Your task to perform on an android device: Add "razer blade" to the cart on amazon.com Image 0: 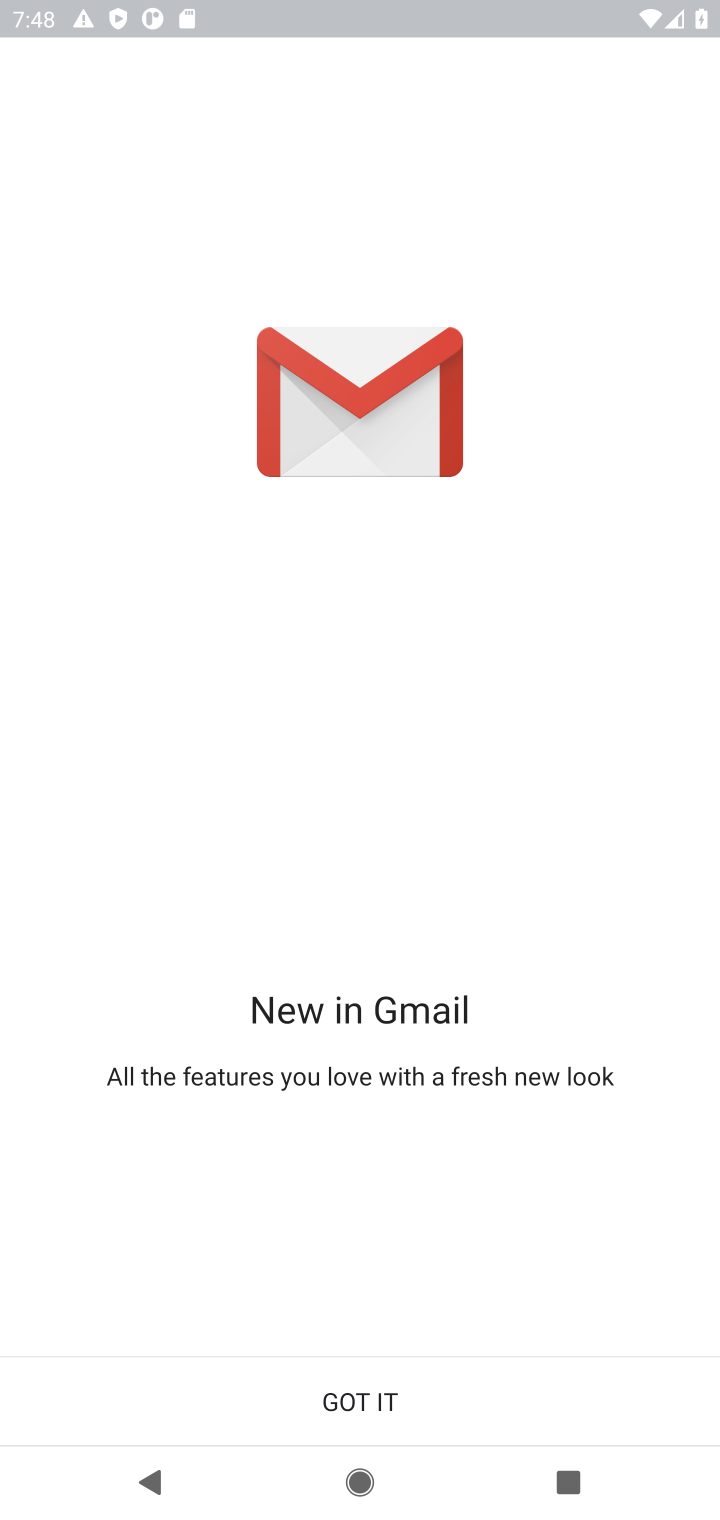
Step 0: press home button
Your task to perform on an android device: Add "razer blade" to the cart on amazon.com Image 1: 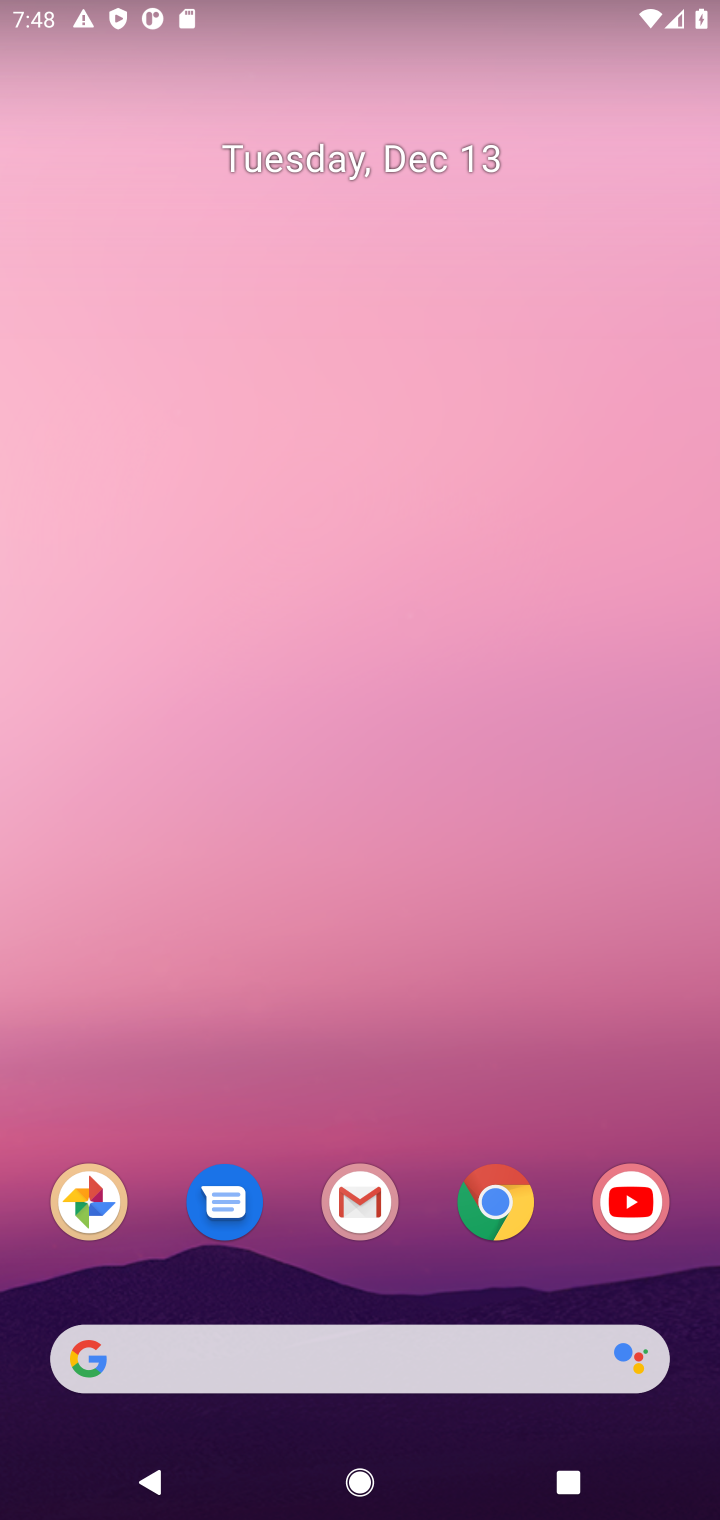
Step 1: click (494, 1205)
Your task to perform on an android device: Add "razer blade" to the cart on amazon.com Image 2: 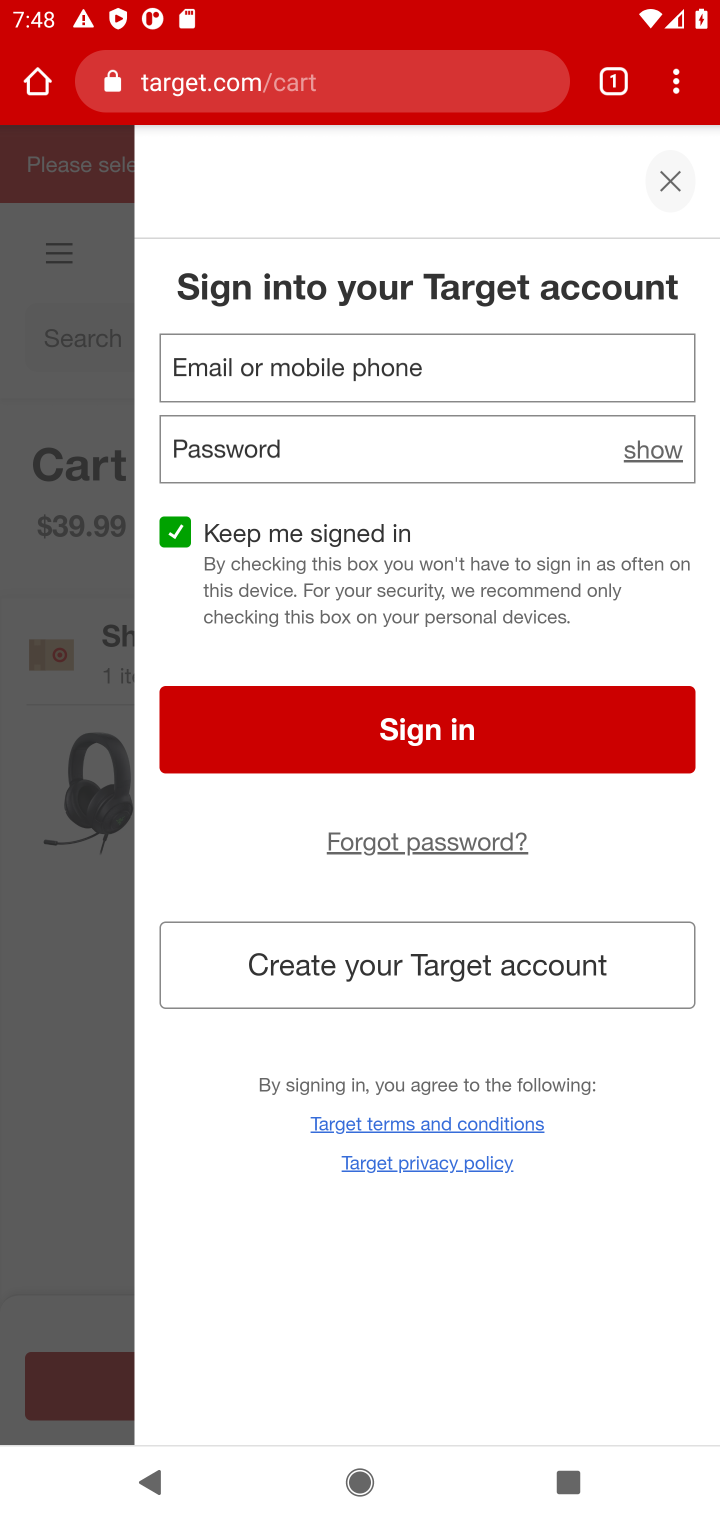
Step 2: click (256, 98)
Your task to perform on an android device: Add "razer blade" to the cart on amazon.com Image 3: 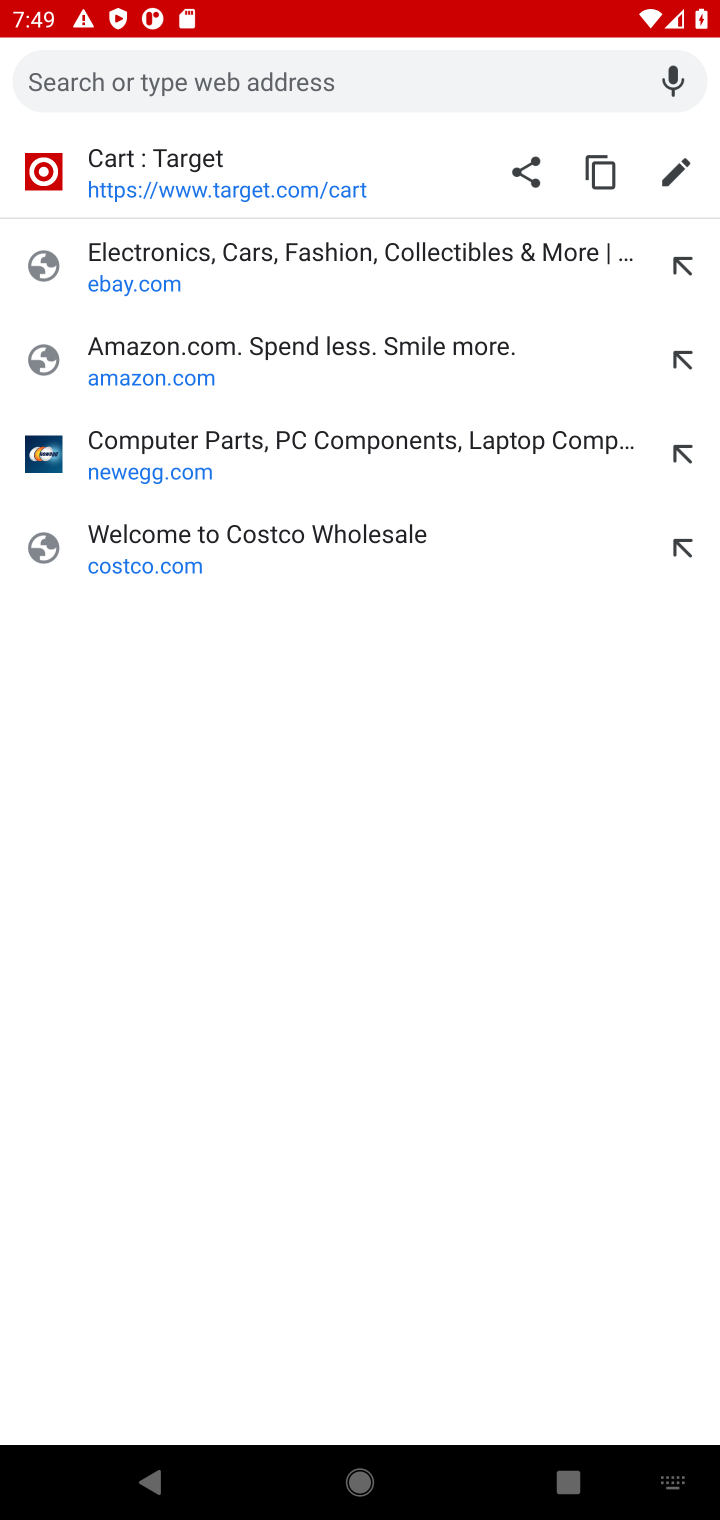
Step 3: click (135, 392)
Your task to perform on an android device: Add "razer blade" to the cart on amazon.com Image 4: 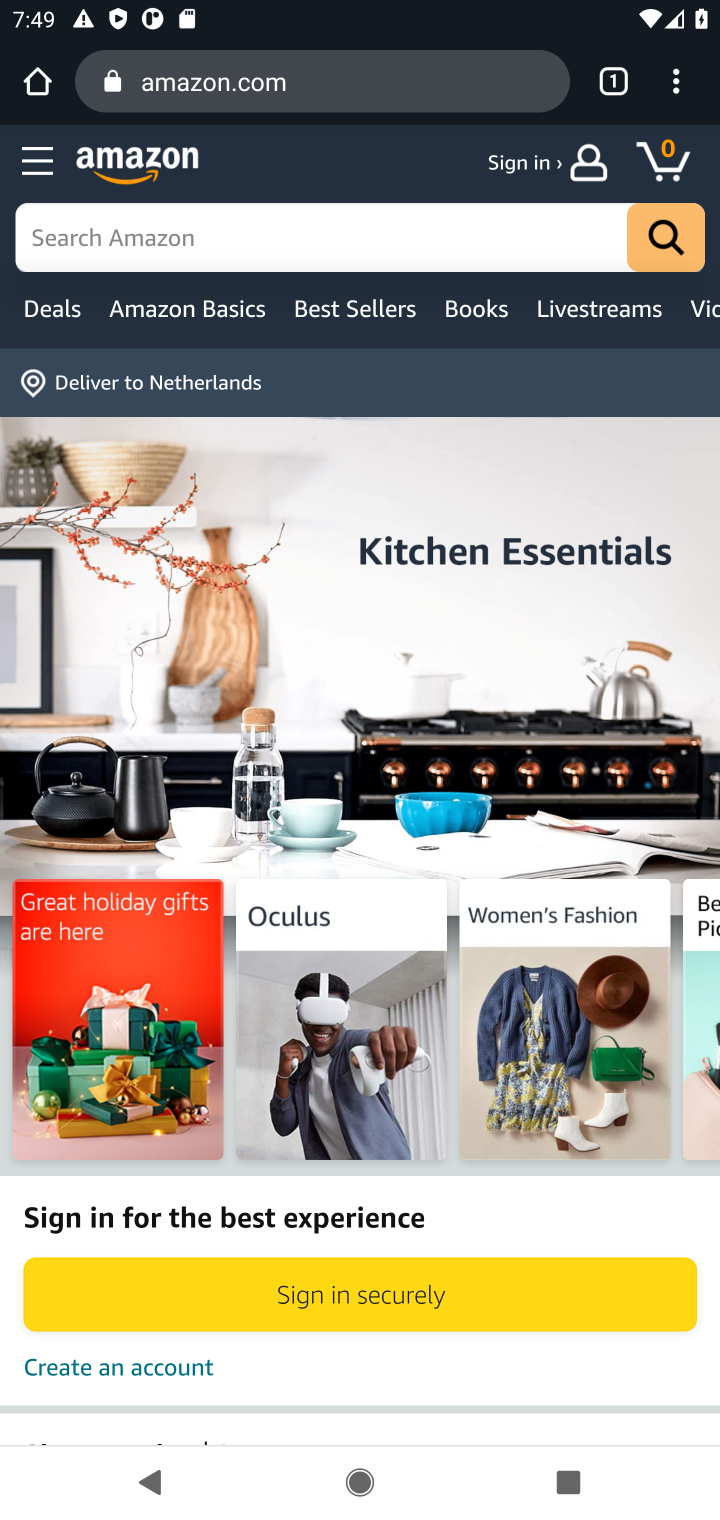
Step 4: click (182, 238)
Your task to perform on an android device: Add "razer blade" to the cart on amazon.com Image 5: 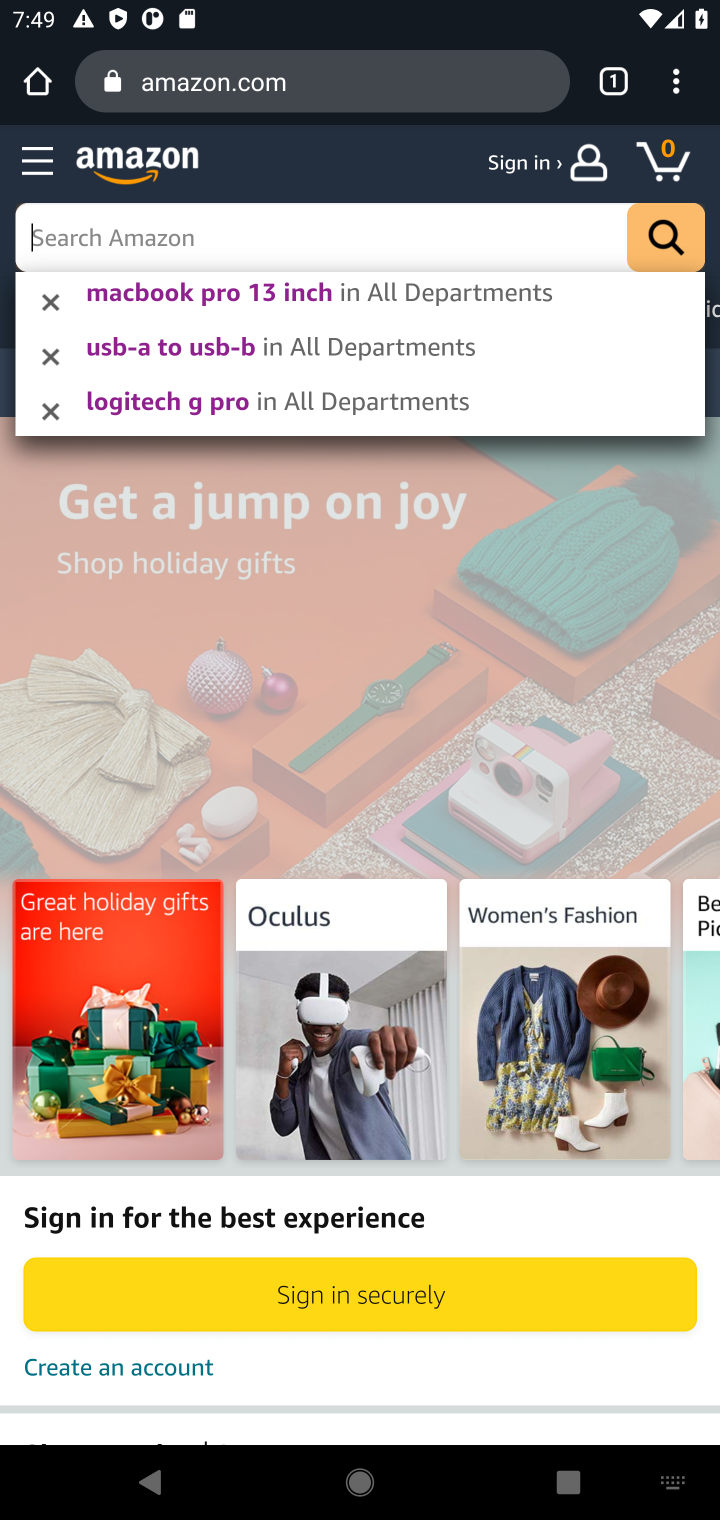
Step 5: type "razer blade"
Your task to perform on an android device: Add "razer blade" to the cart on amazon.com Image 6: 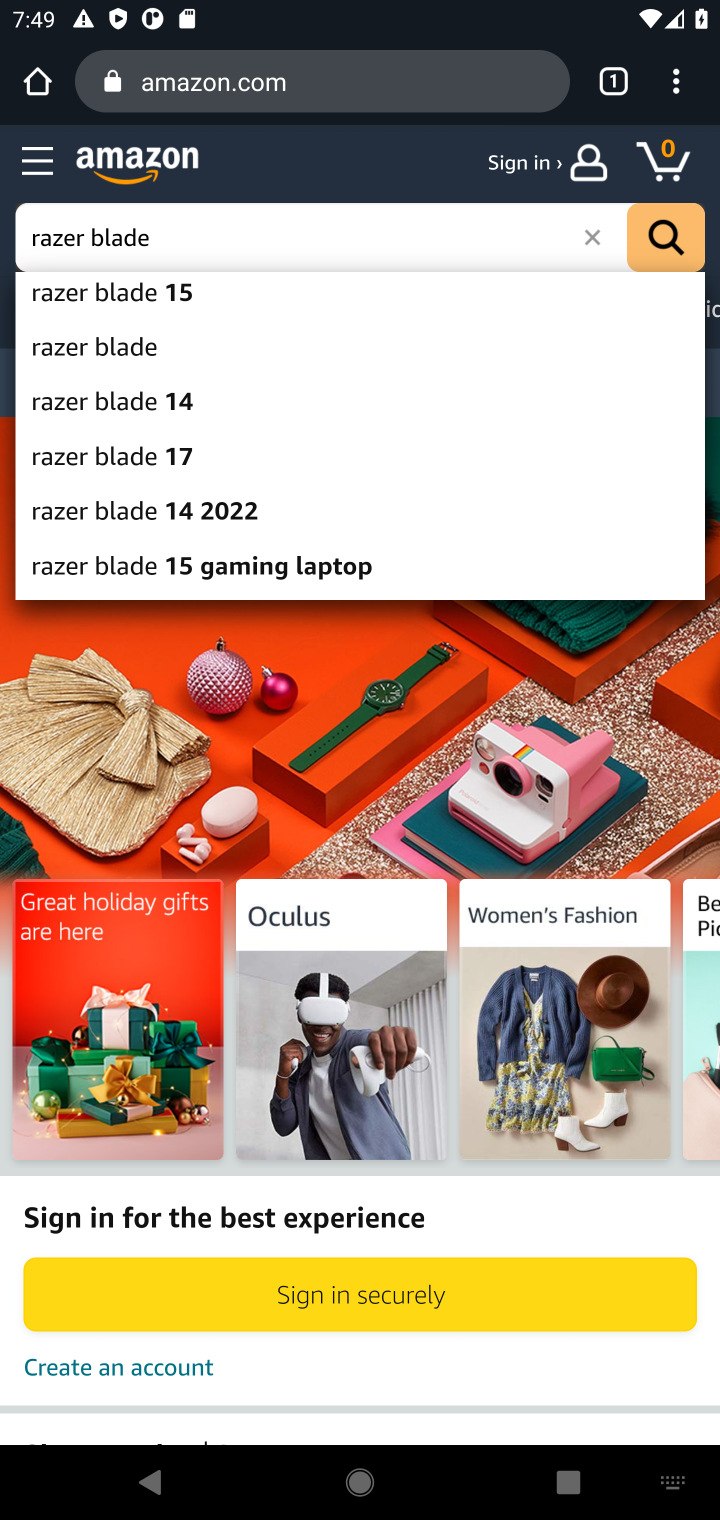
Step 6: click (37, 350)
Your task to perform on an android device: Add "razer blade" to the cart on amazon.com Image 7: 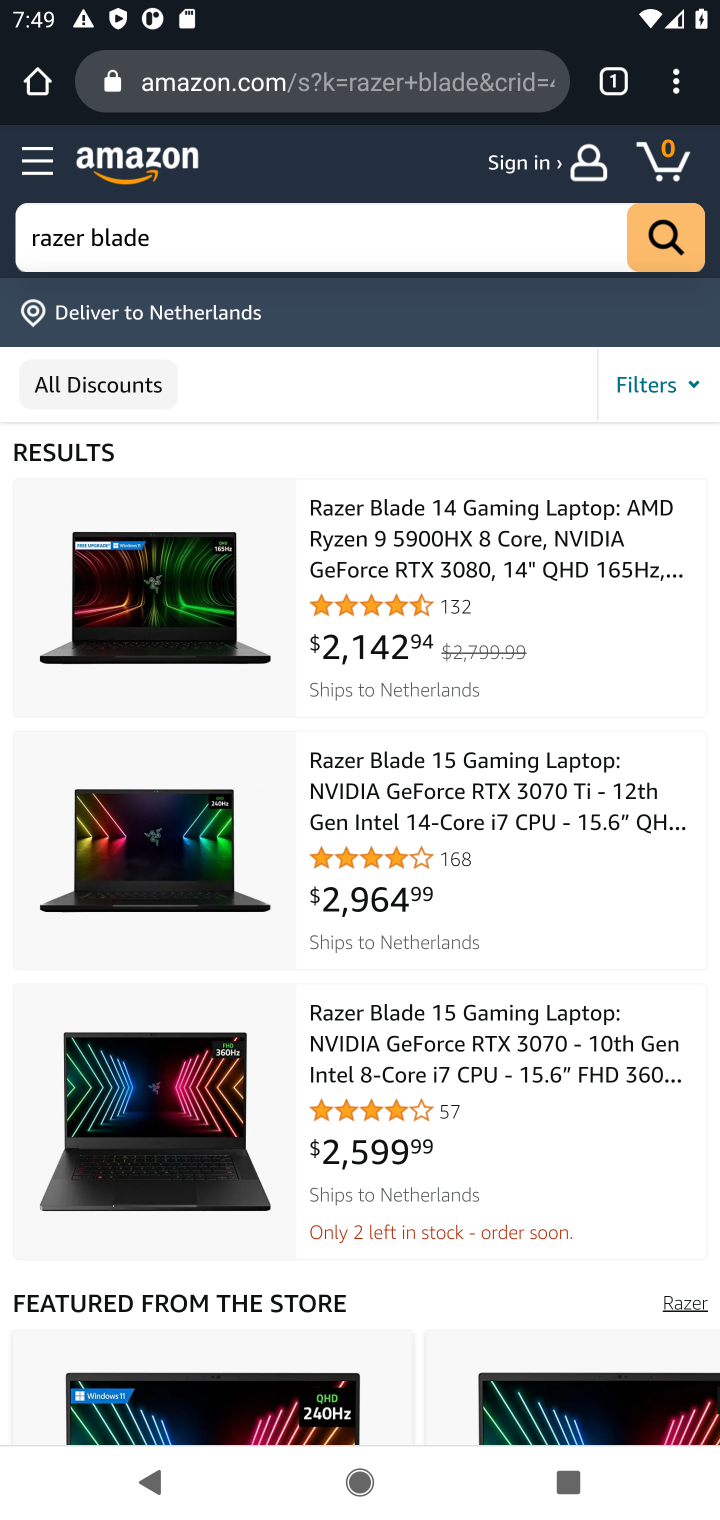
Step 7: click (442, 565)
Your task to perform on an android device: Add "razer blade" to the cart on amazon.com Image 8: 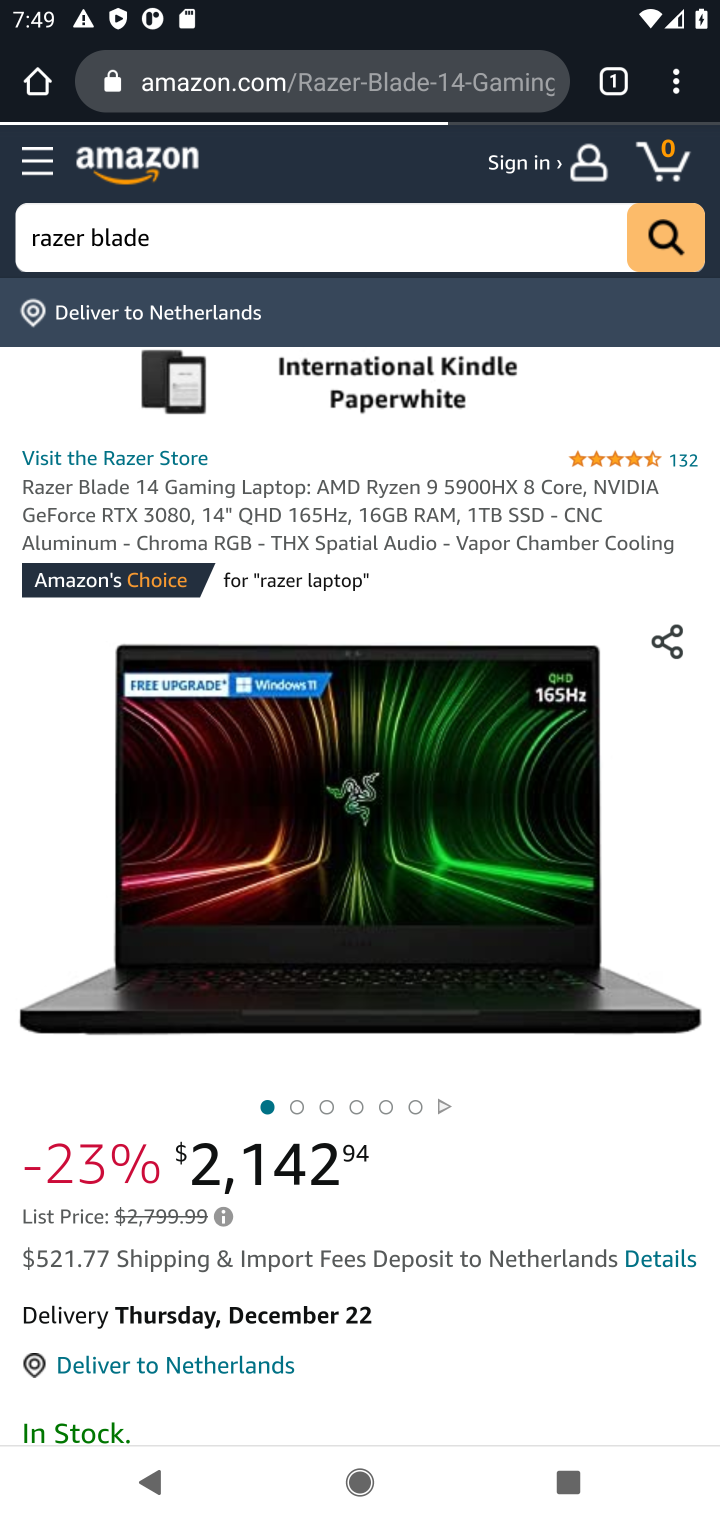
Step 8: drag from (480, 975) to (476, 542)
Your task to perform on an android device: Add "razer blade" to the cart on amazon.com Image 9: 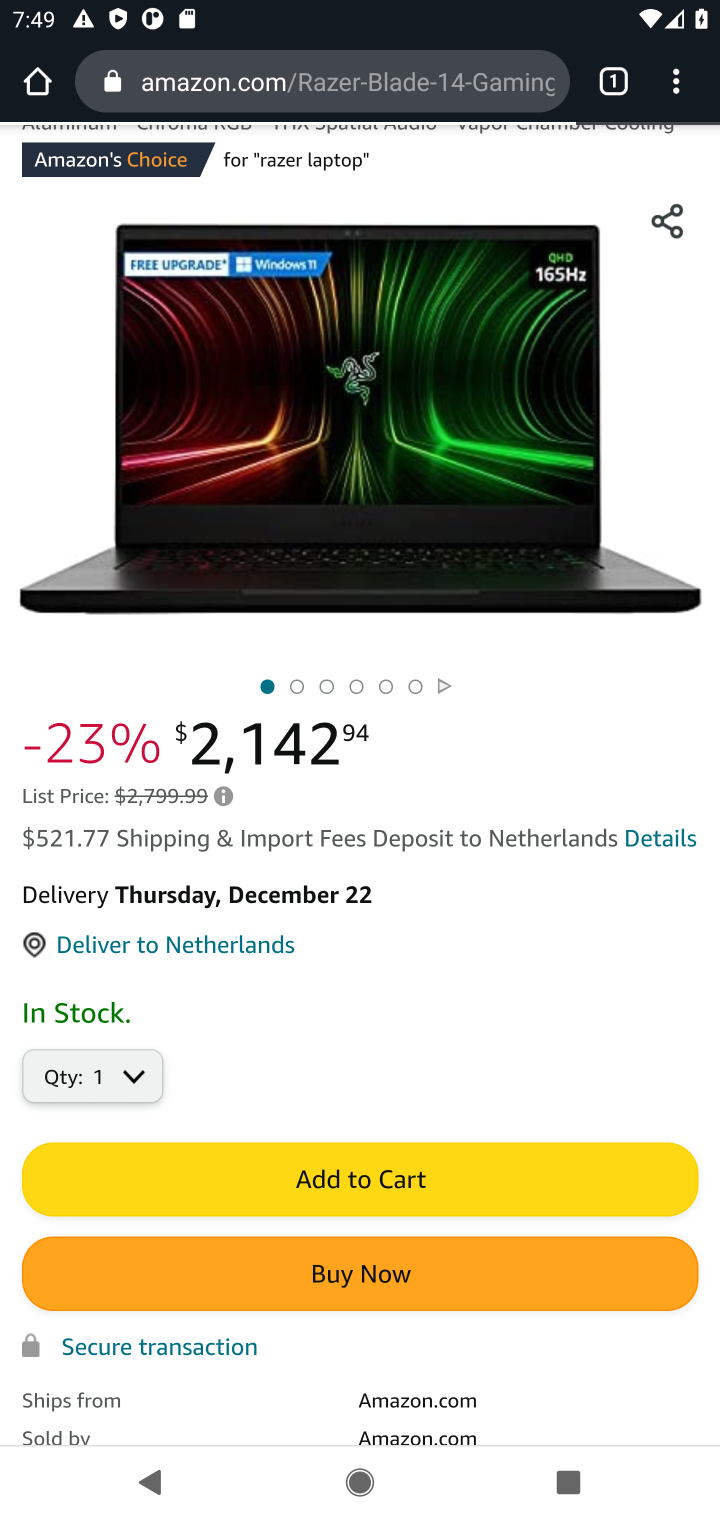
Step 9: click (317, 1178)
Your task to perform on an android device: Add "razer blade" to the cart on amazon.com Image 10: 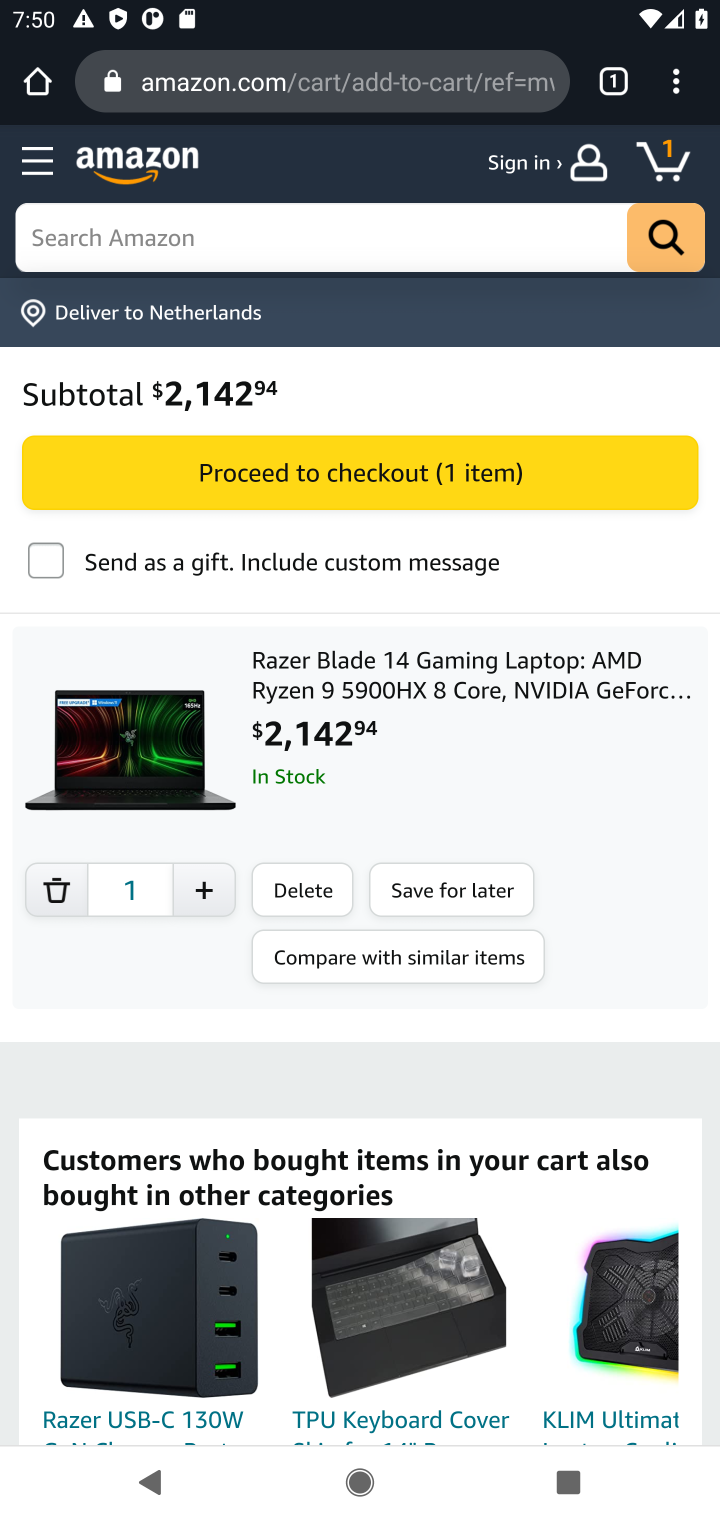
Step 10: task complete